Your task to perform on an android device: Open wifi settings Image 0: 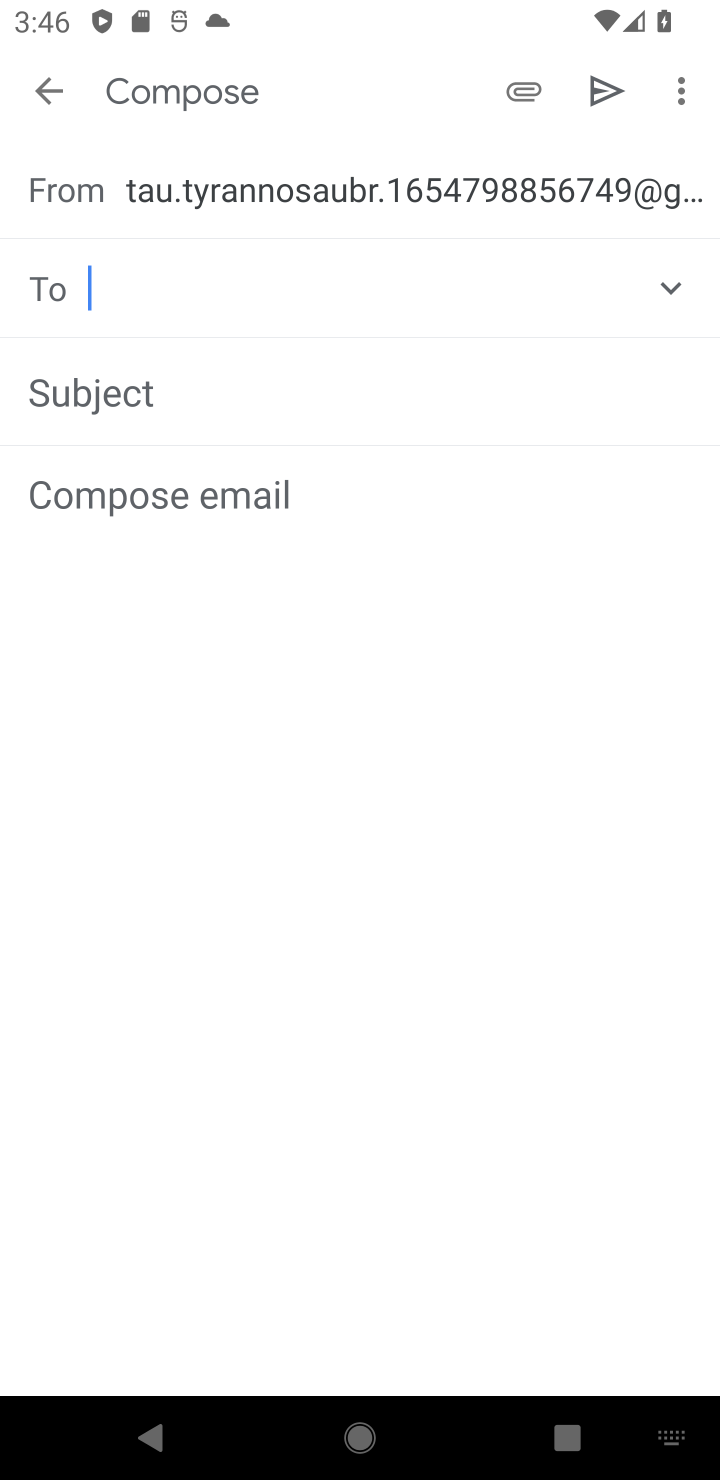
Step 0: press home button
Your task to perform on an android device: Open wifi settings Image 1: 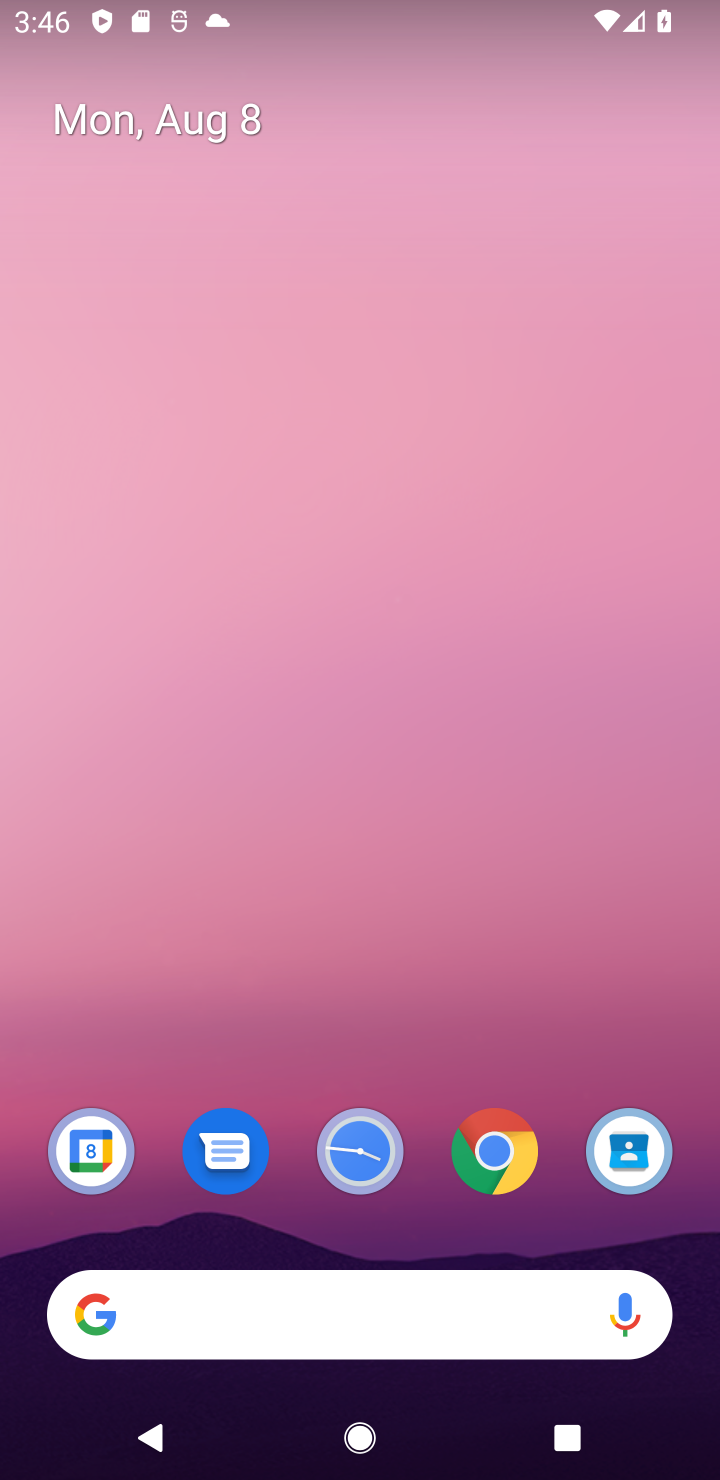
Step 1: drag from (456, 1053) to (436, 16)
Your task to perform on an android device: Open wifi settings Image 2: 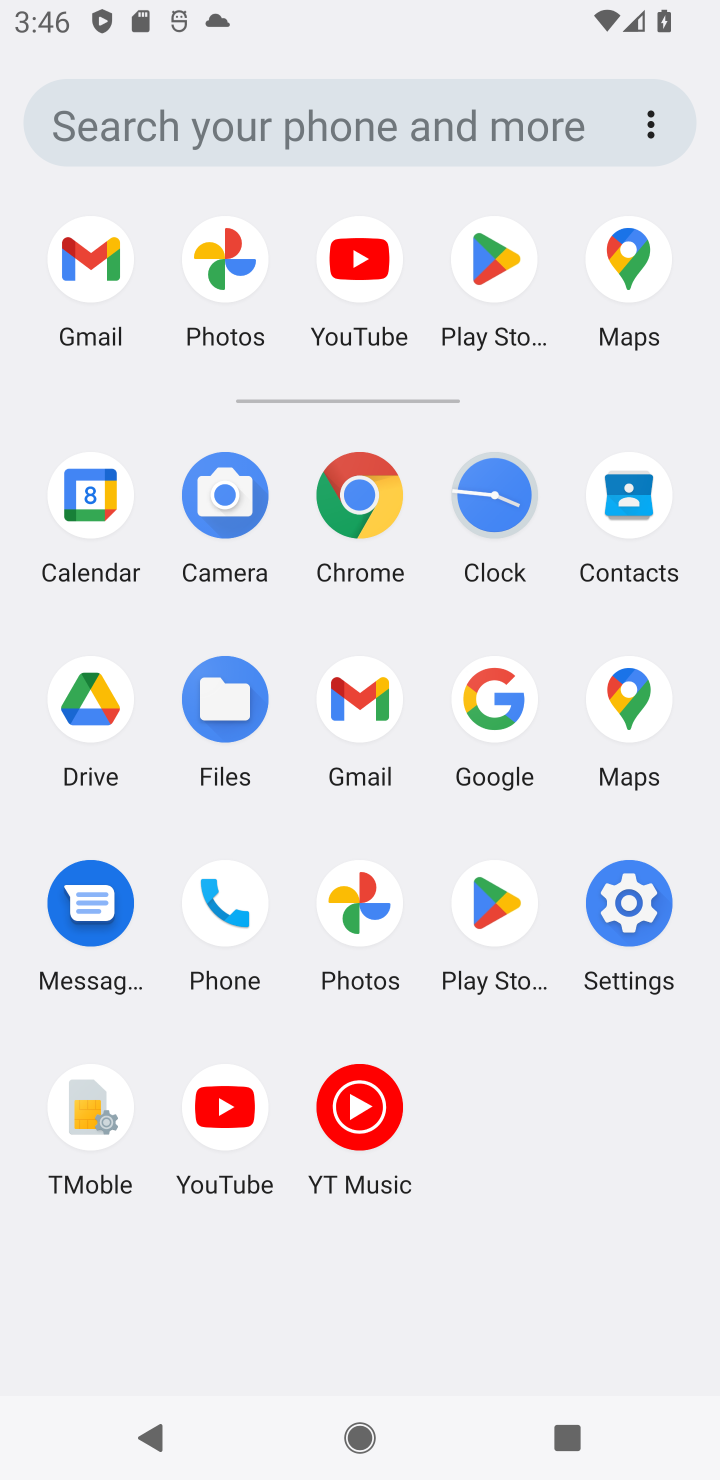
Step 2: click (634, 901)
Your task to perform on an android device: Open wifi settings Image 3: 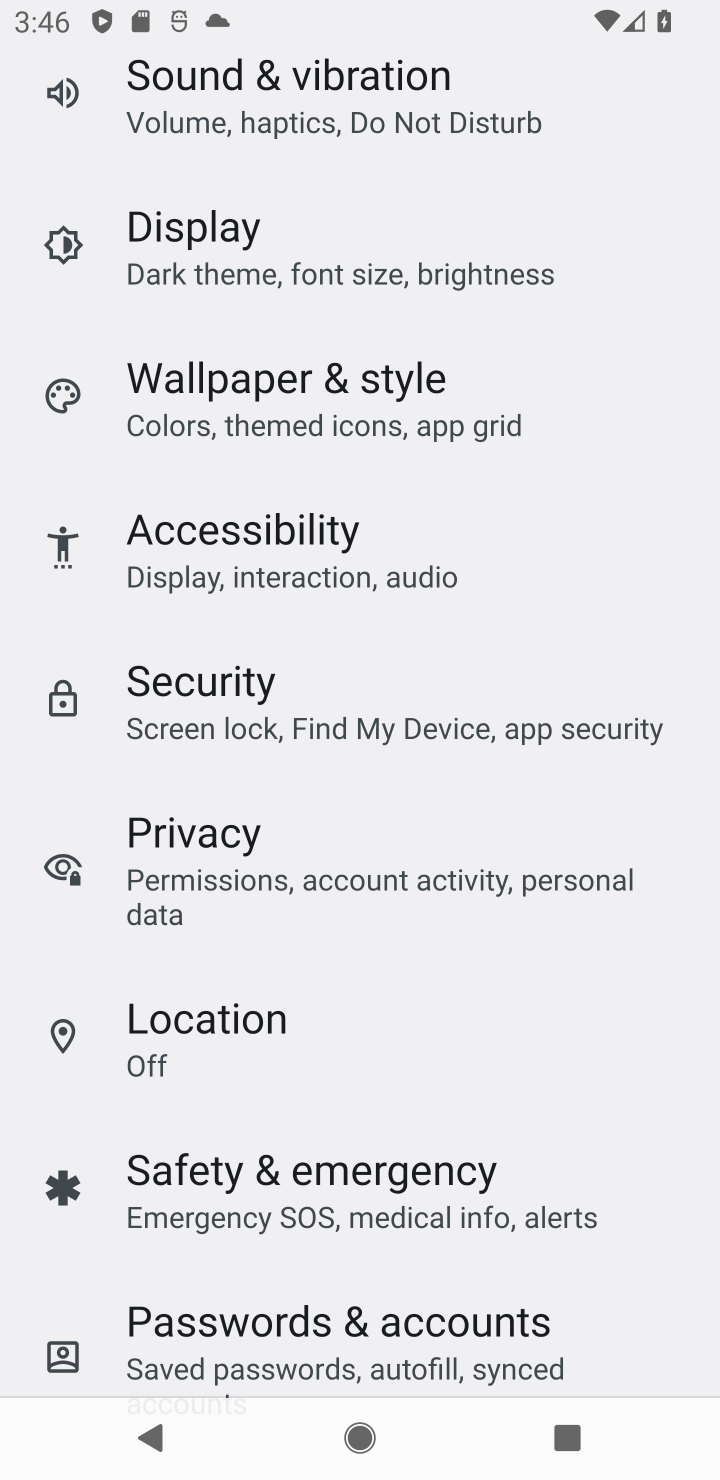
Step 3: drag from (326, 408) to (341, 1098)
Your task to perform on an android device: Open wifi settings Image 4: 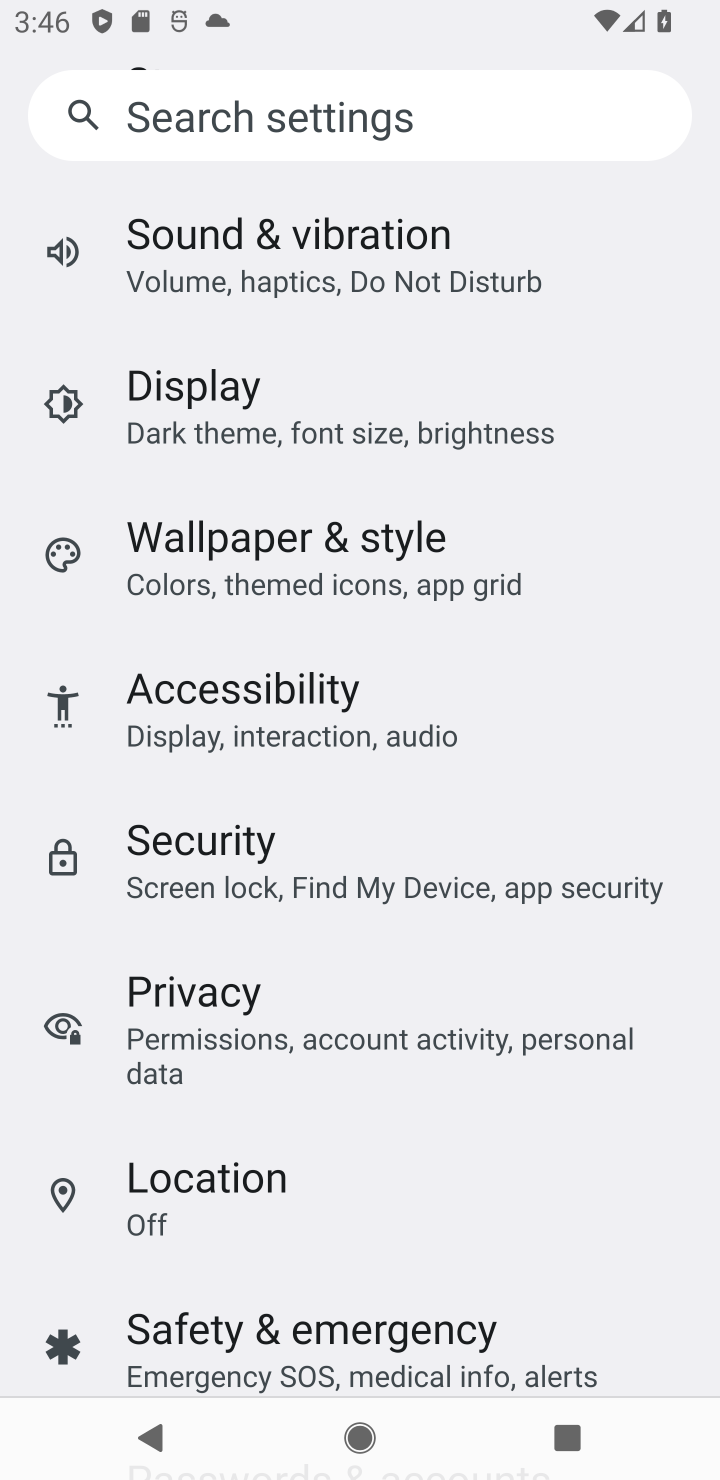
Step 4: drag from (272, 212) to (274, 943)
Your task to perform on an android device: Open wifi settings Image 5: 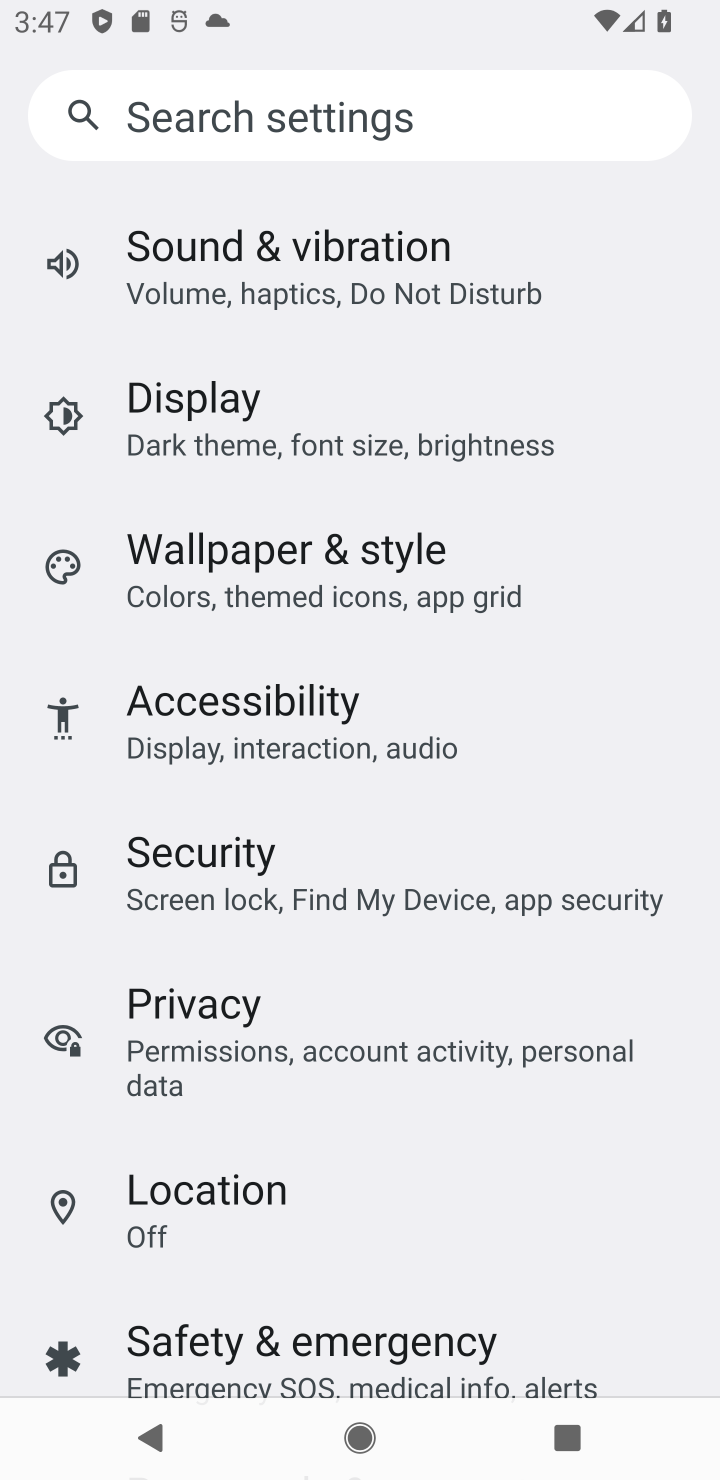
Step 5: drag from (320, 371) to (332, 1062)
Your task to perform on an android device: Open wifi settings Image 6: 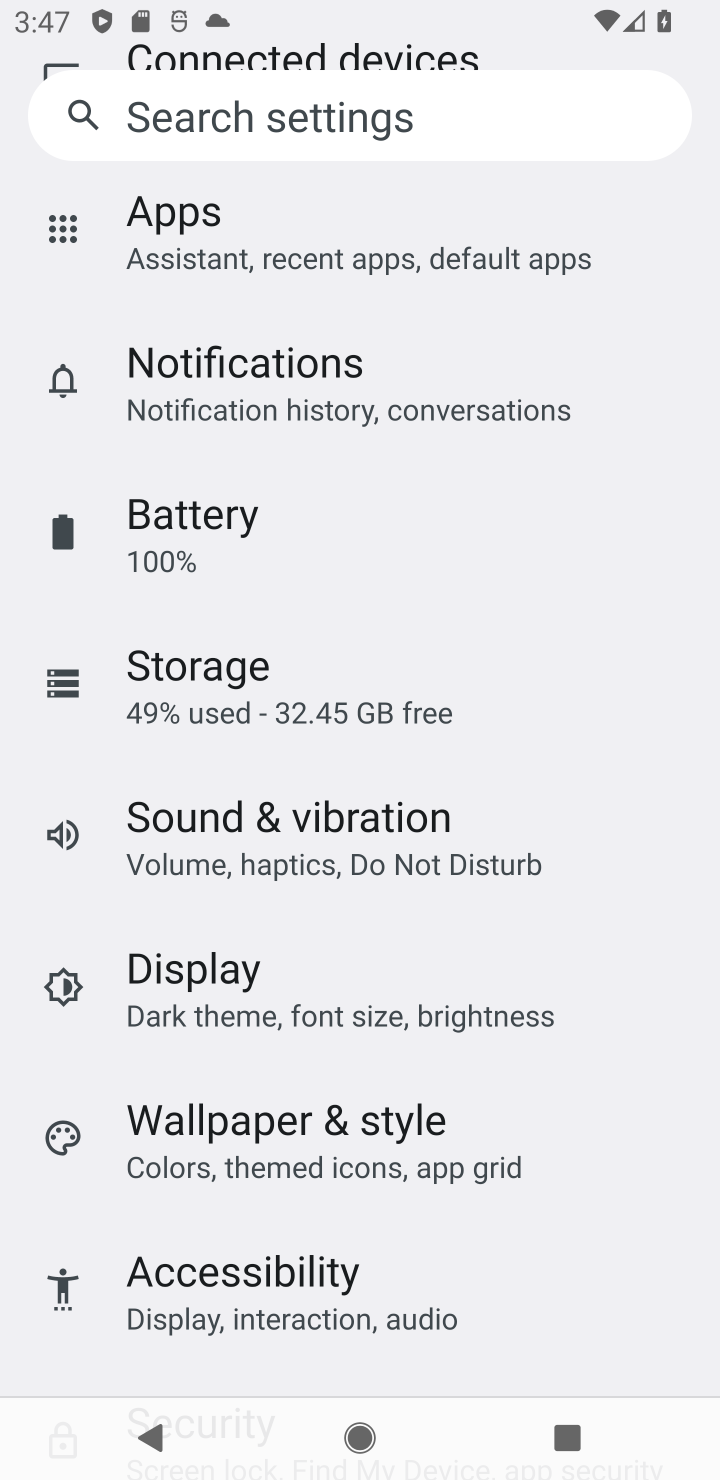
Step 6: drag from (295, 377) to (383, 1014)
Your task to perform on an android device: Open wifi settings Image 7: 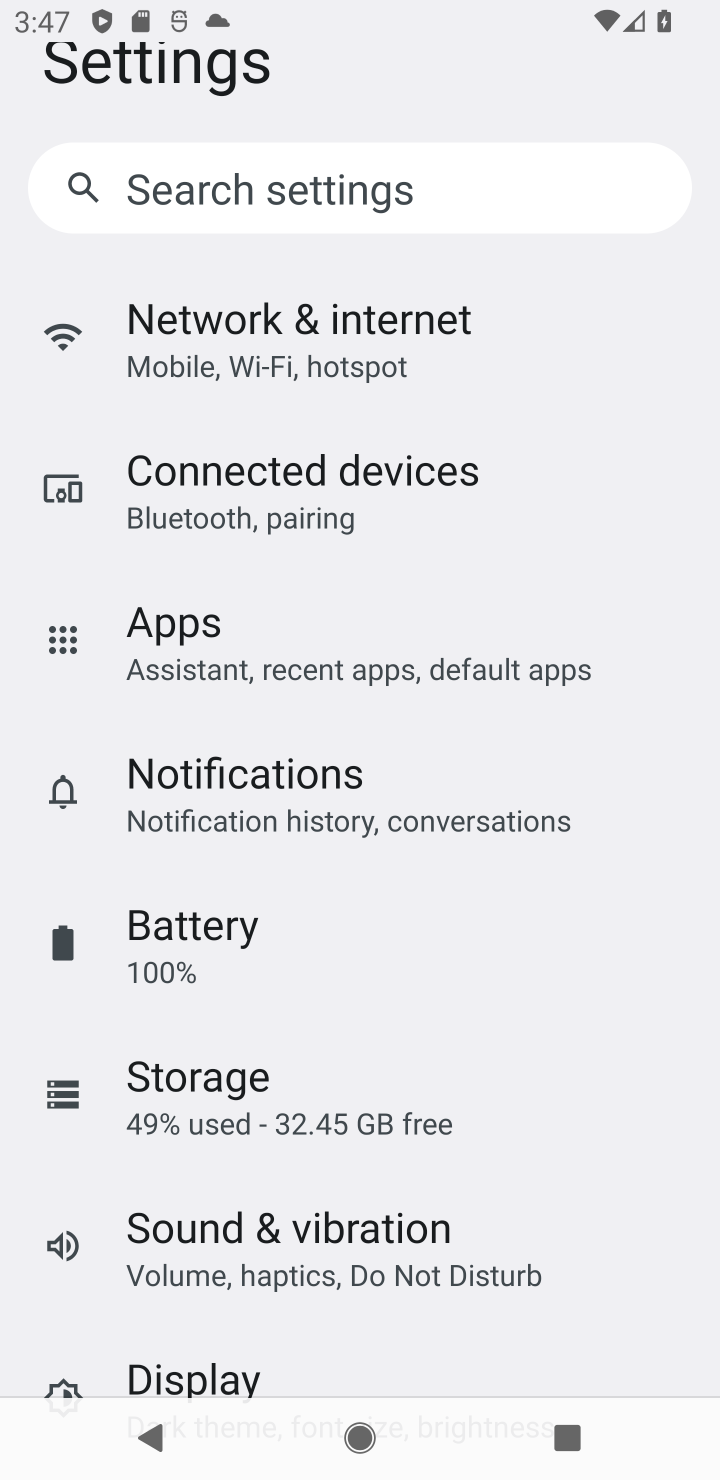
Step 7: click (332, 368)
Your task to perform on an android device: Open wifi settings Image 8: 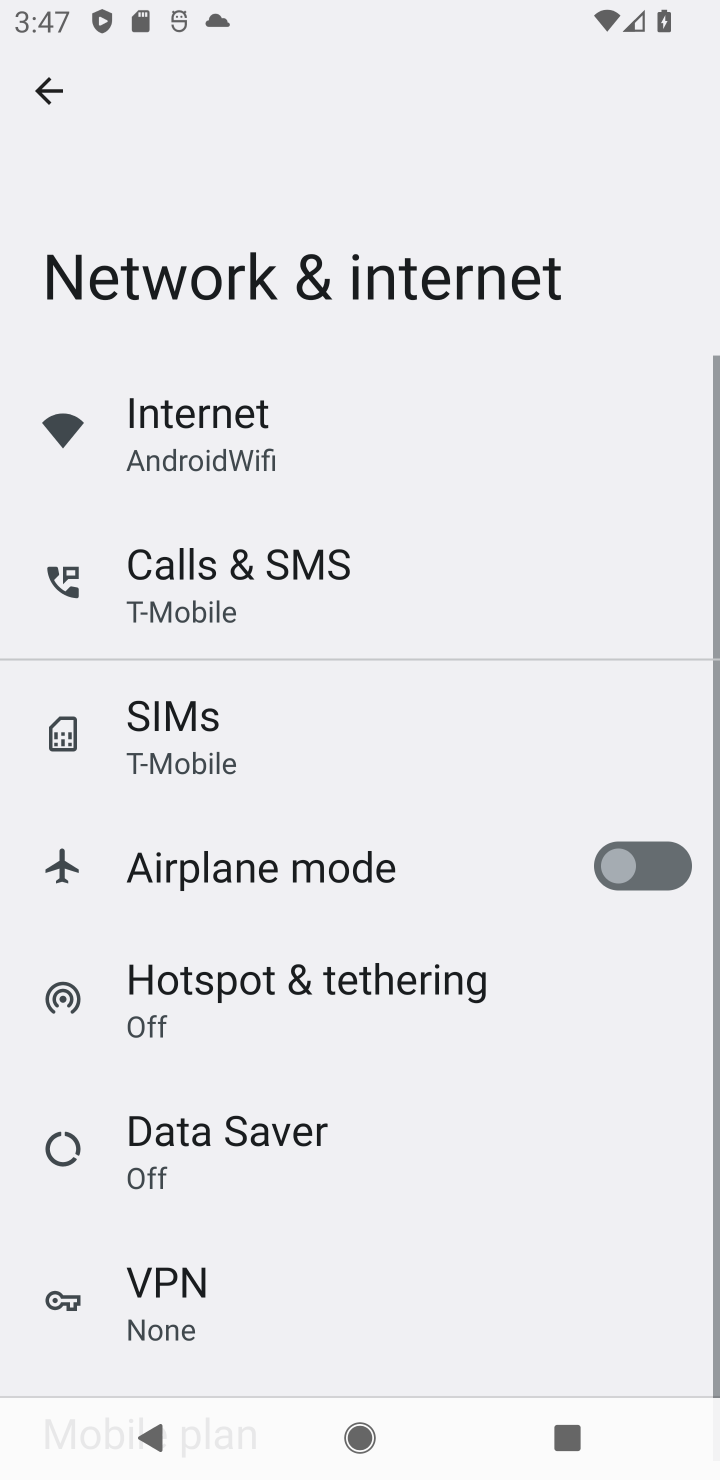
Step 8: click (430, 404)
Your task to perform on an android device: Open wifi settings Image 9: 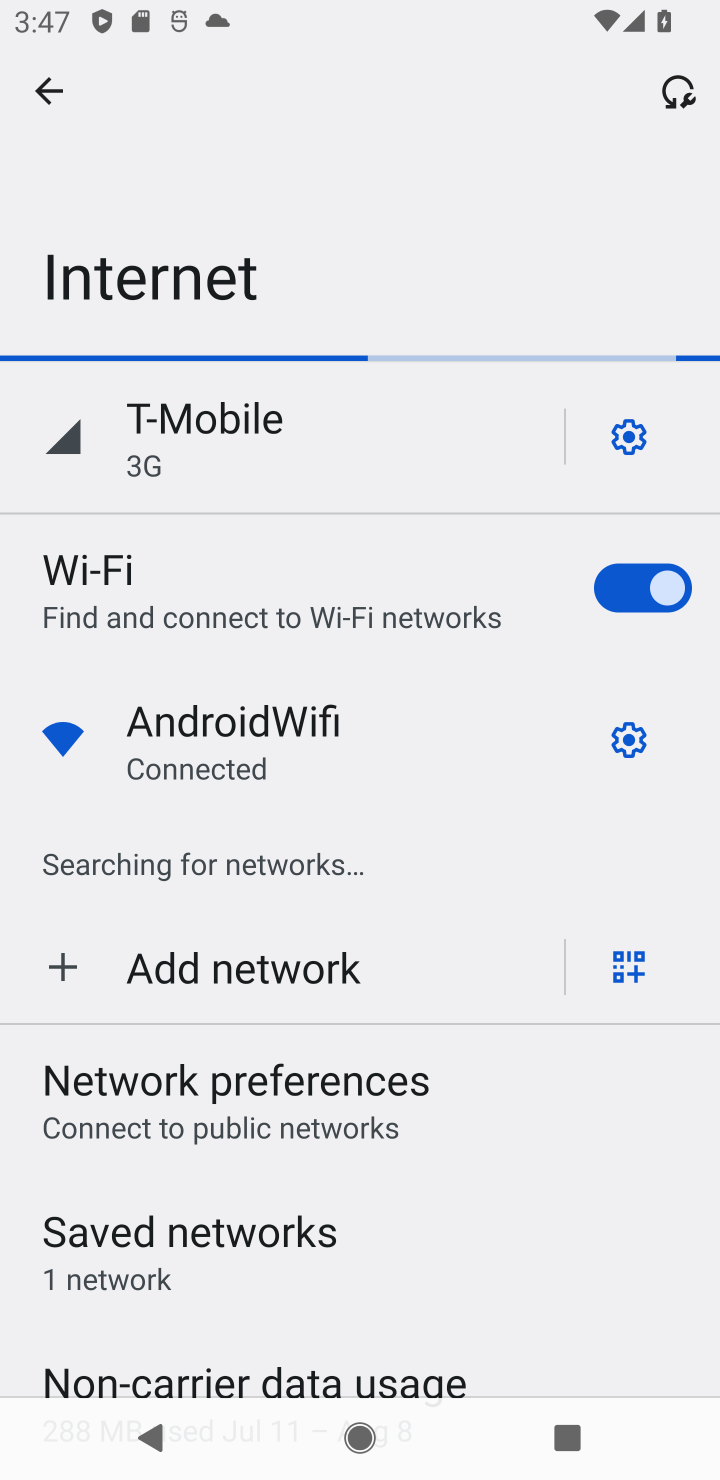
Step 9: task complete